Your task to perform on an android device: Turn on the flashlight Image 0: 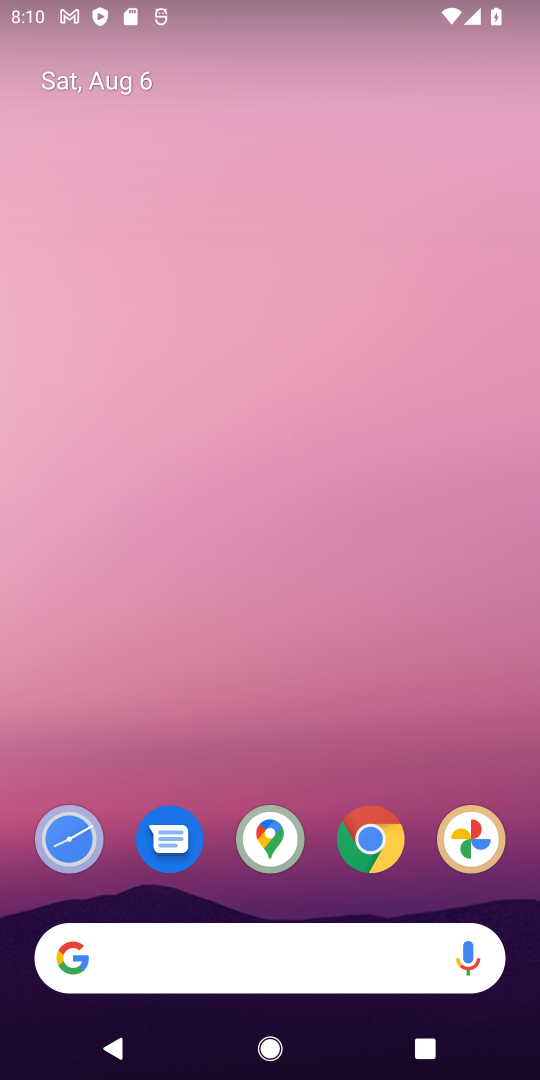
Step 0: drag from (408, 772) to (360, 134)
Your task to perform on an android device: Turn on the flashlight Image 1: 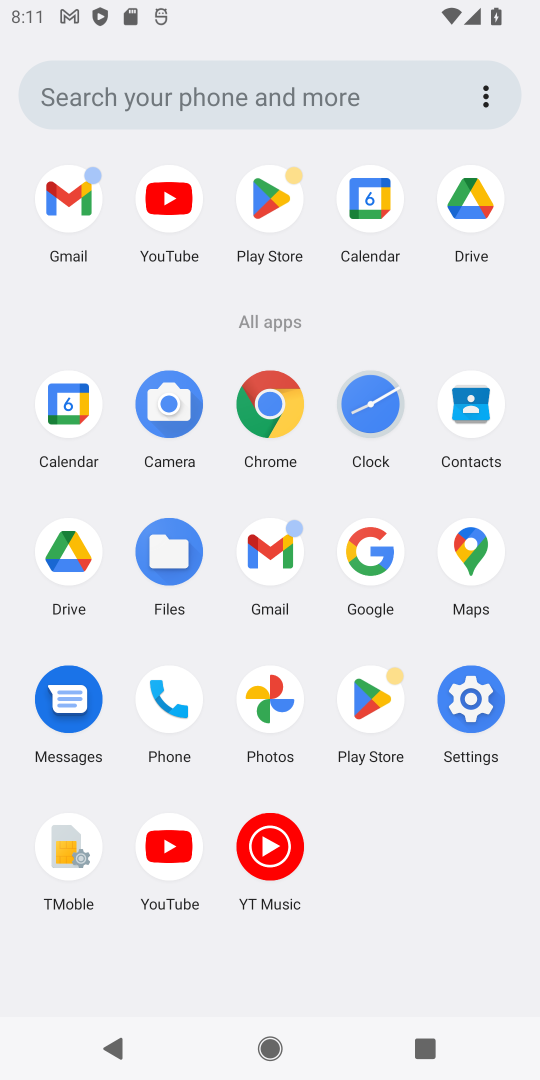
Step 1: drag from (280, 1) to (388, 1001)
Your task to perform on an android device: Turn on the flashlight Image 2: 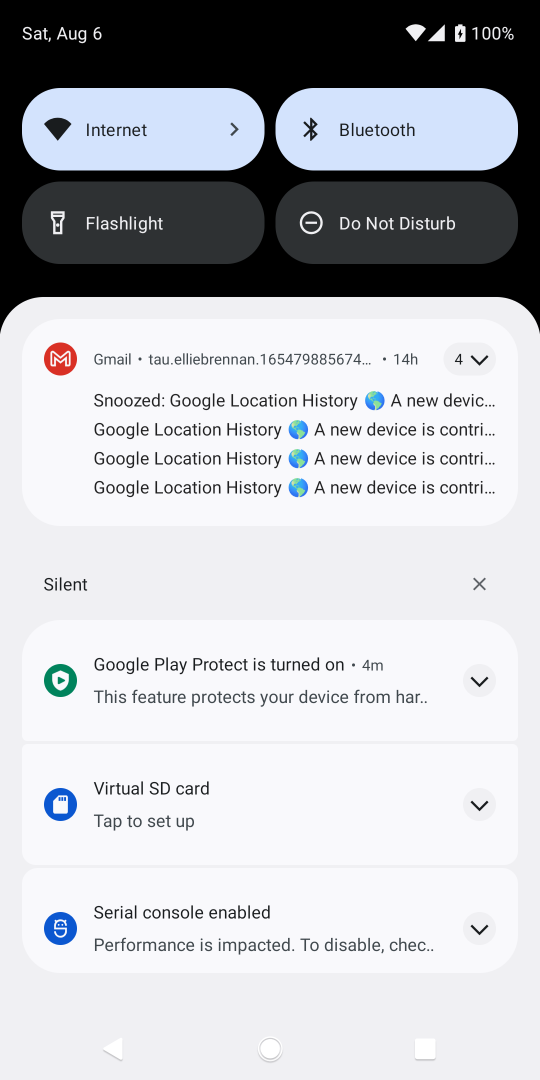
Step 2: drag from (255, 251) to (359, 875)
Your task to perform on an android device: Turn on the flashlight Image 3: 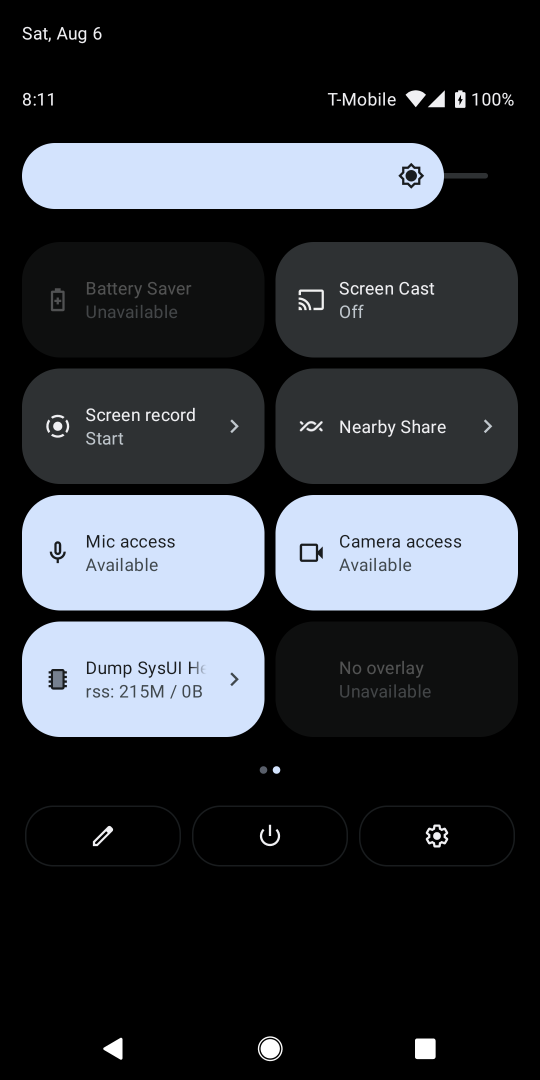
Step 3: drag from (25, 610) to (509, 629)
Your task to perform on an android device: Turn on the flashlight Image 4: 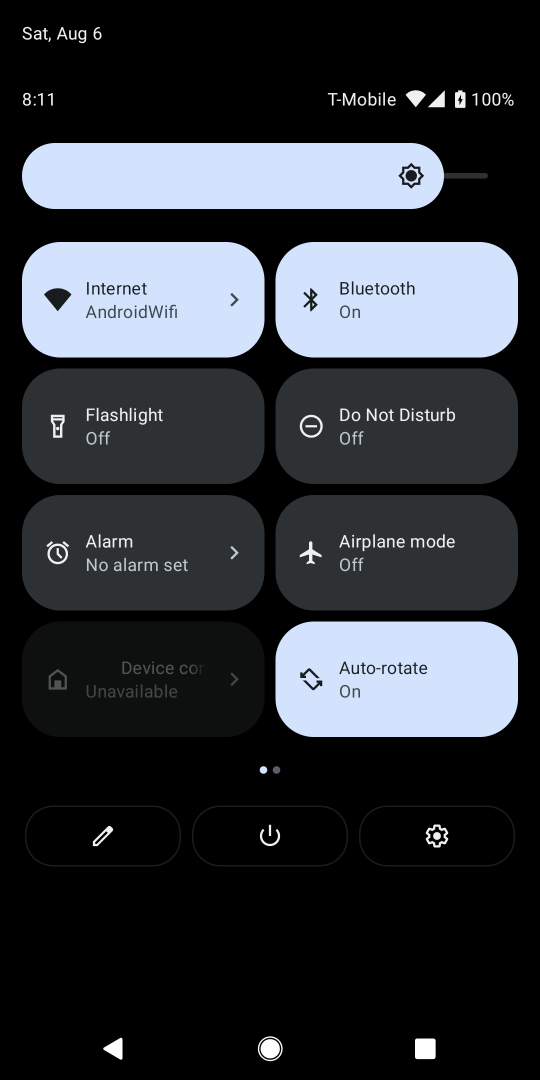
Step 4: click (140, 433)
Your task to perform on an android device: Turn on the flashlight Image 5: 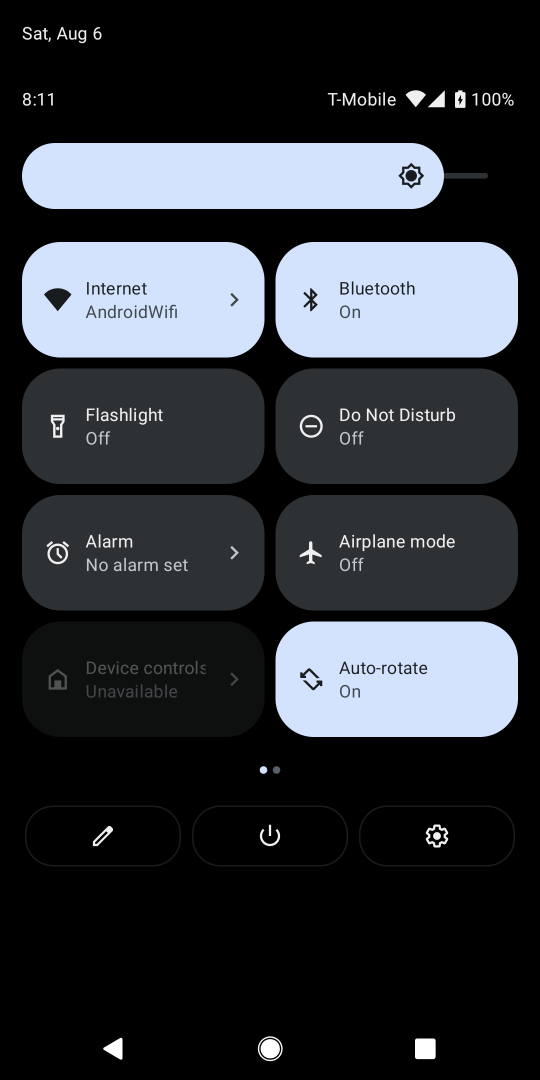
Step 5: task complete